Your task to perform on an android device: Open sound settings Image 0: 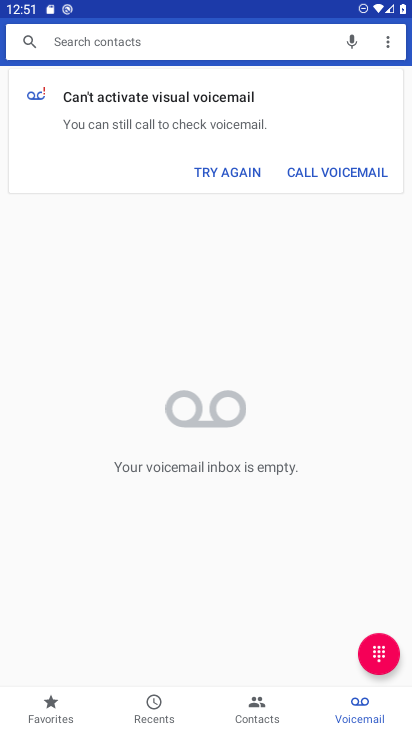
Step 0: press home button
Your task to perform on an android device: Open sound settings Image 1: 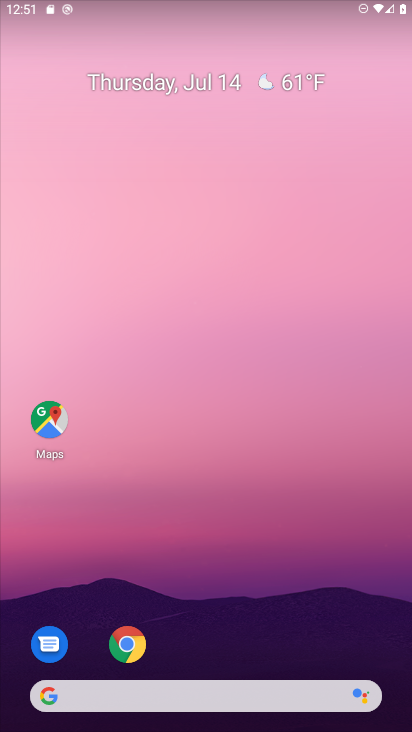
Step 1: drag from (252, 585) to (195, 78)
Your task to perform on an android device: Open sound settings Image 2: 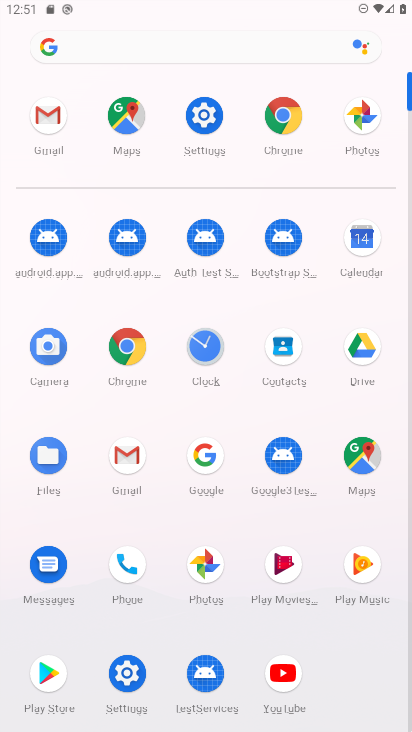
Step 2: click (206, 116)
Your task to perform on an android device: Open sound settings Image 3: 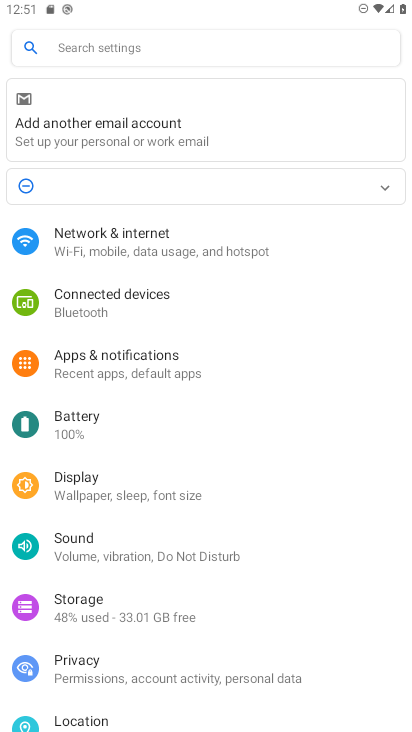
Step 3: click (91, 554)
Your task to perform on an android device: Open sound settings Image 4: 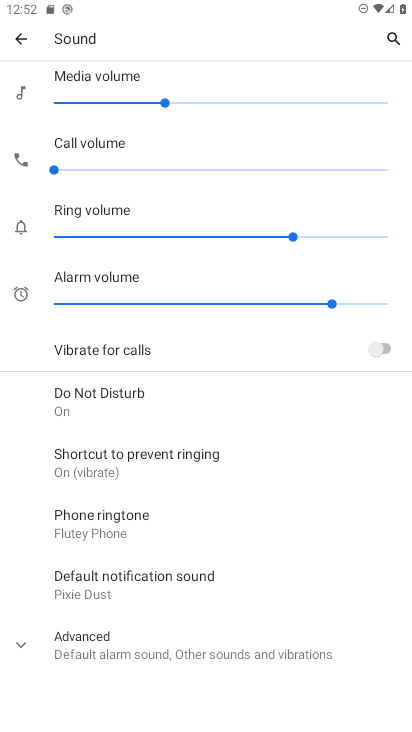
Step 4: task complete